Your task to perform on an android device: move an email to a new category in the gmail app Image 0: 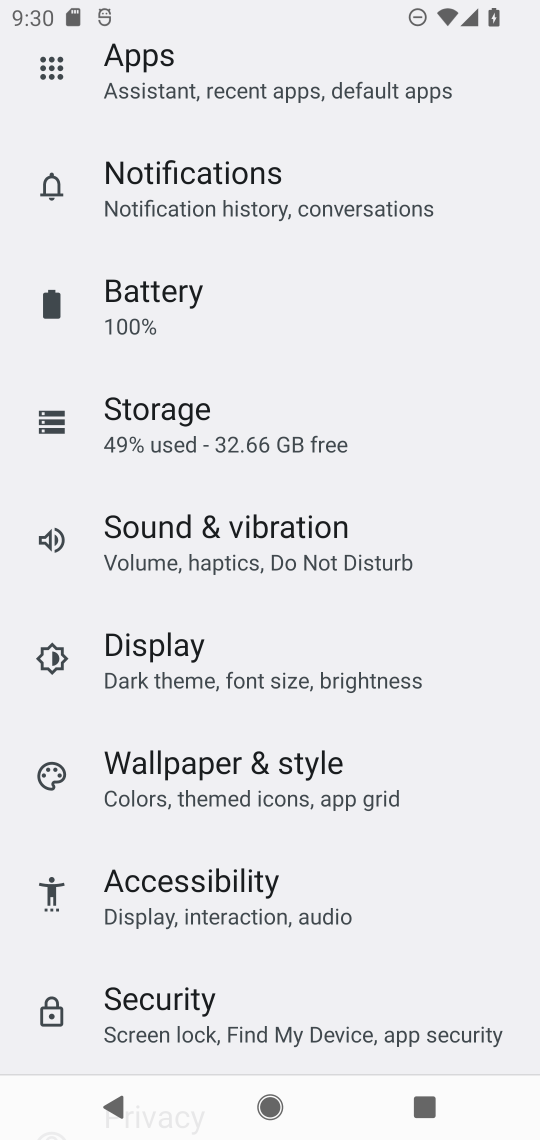
Step 0: press home button
Your task to perform on an android device: move an email to a new category in the gmail app Image 1: 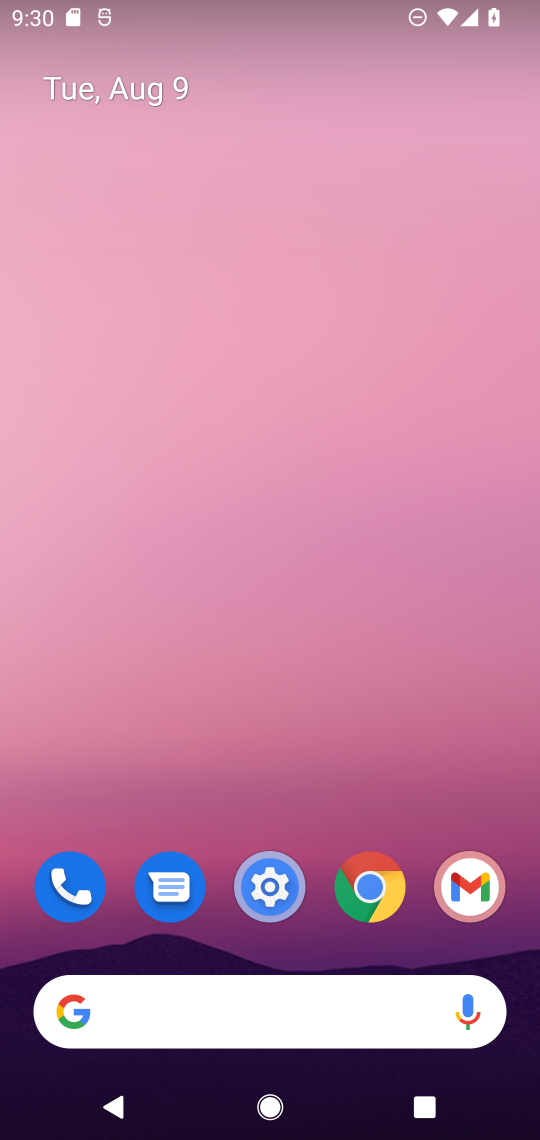
Step 1: click (448, 889)
Your task to perform on an android device: move an email to a new category in the gmail app Image 2: 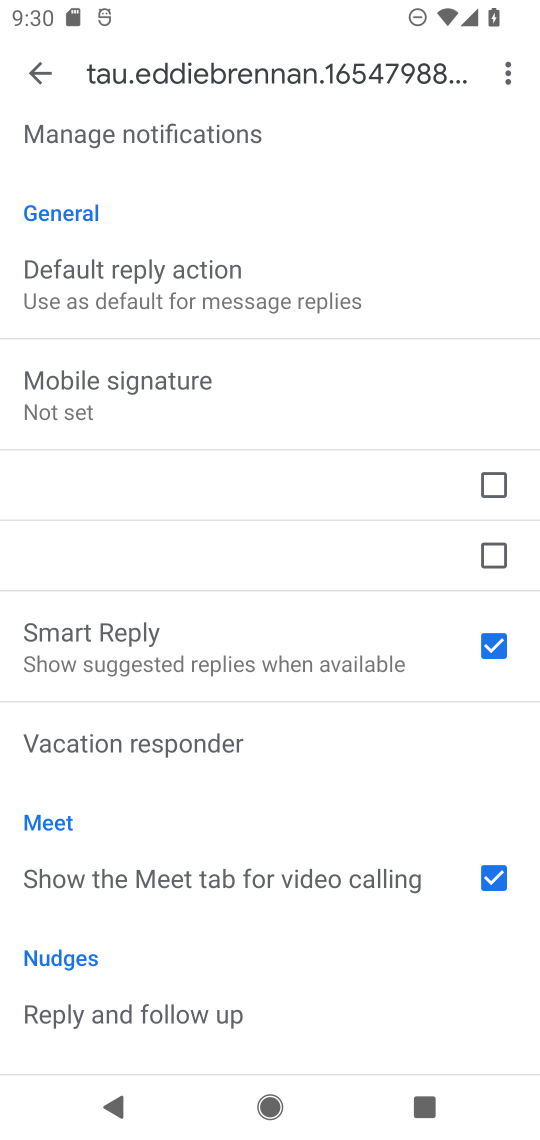
Step 2: task complete